Your task to perform on an android device: toggle location history Image 0: 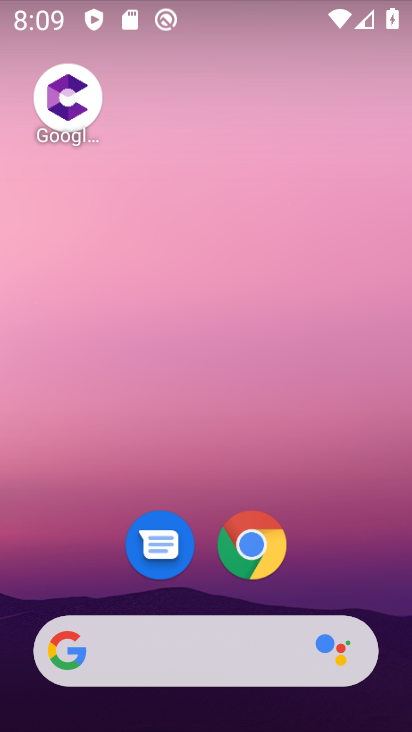
Step 0: drag from (327, 558) to (375, 231)
Your task to perform on an android device: toggle location history Image 1: 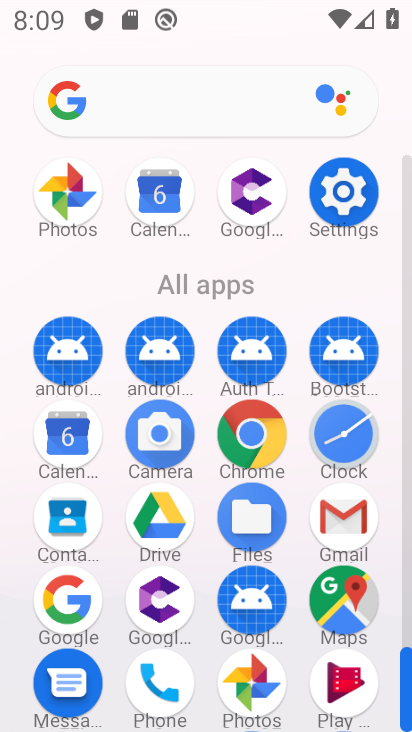
Step 1: click (345, 206)
Your task to perform on an android device: toggle location history Image 2: 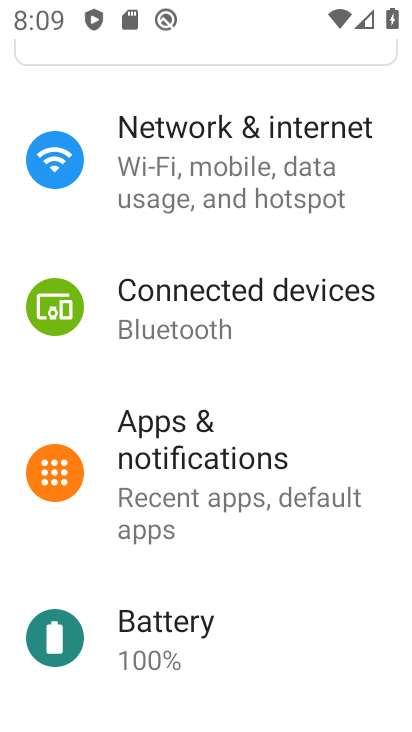
Step 2: drag from (156, 622) to (242, 287)
Your task to perform on an android device: toggle location history Image 3: 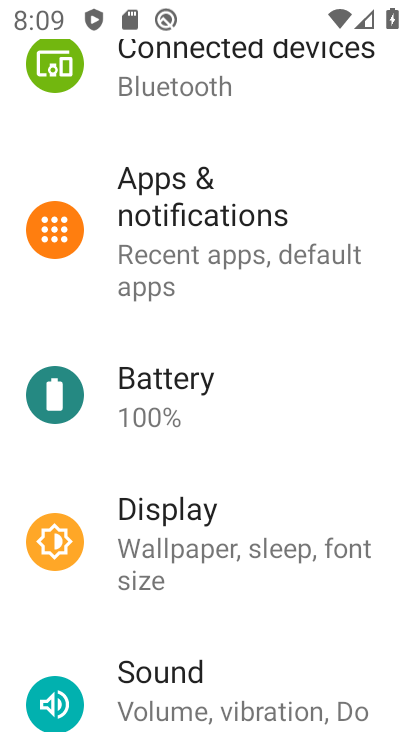
Step 3: drag from (267, 617) to (323, 238)
Your task to perform on an android device: toggle location history Image 4: 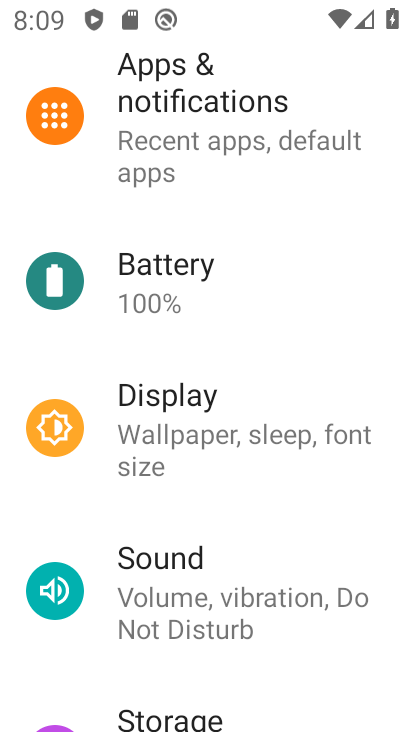
Step 4: drag from (302, 646) to (320, 341)
Your task to perform on an android device: toggle location history Image 5: 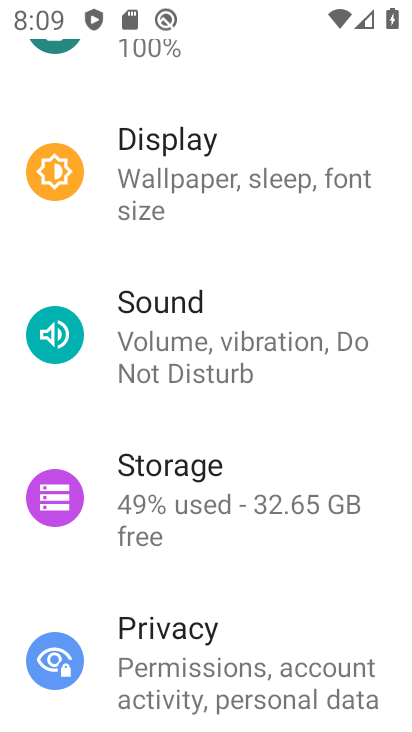
Step 5: drag from (266, 714) to (319, 373)
Your task to perform on an android device: toggle location history Image 6: 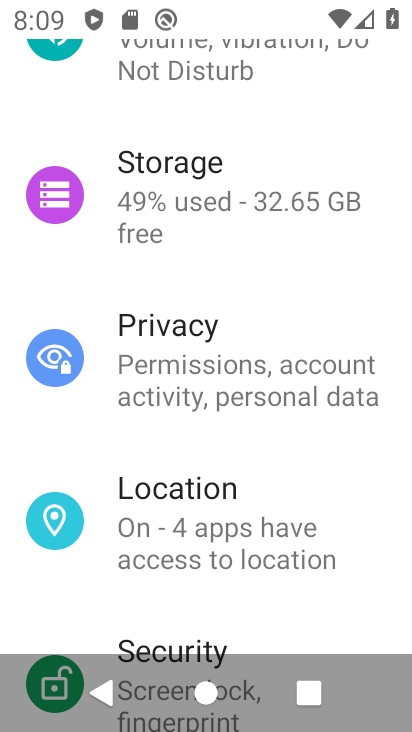
Step 6: click (245, 515)
Your task to perform on an android device: toggle location history Image 7: 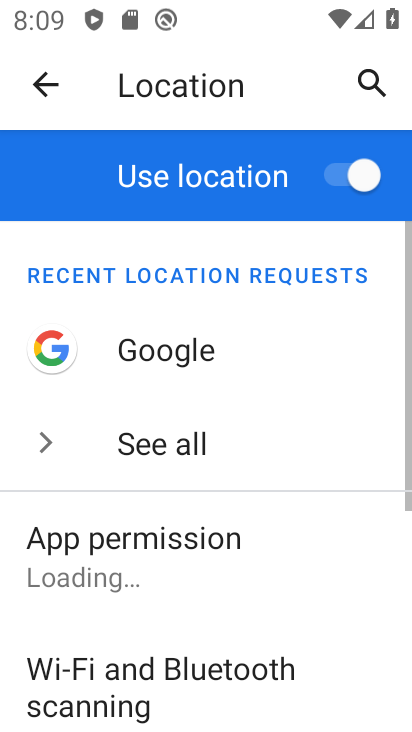
Step 7: drag from (250, 609) to (304, 295)
Your task to perform on an android device: toggle location history Image 8: 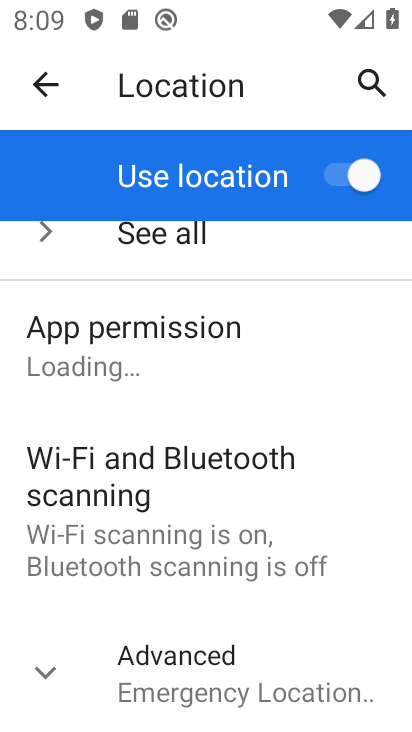
Step 8: click (222, 665)
Your task to perform on an android device: toggle location history Image 9: 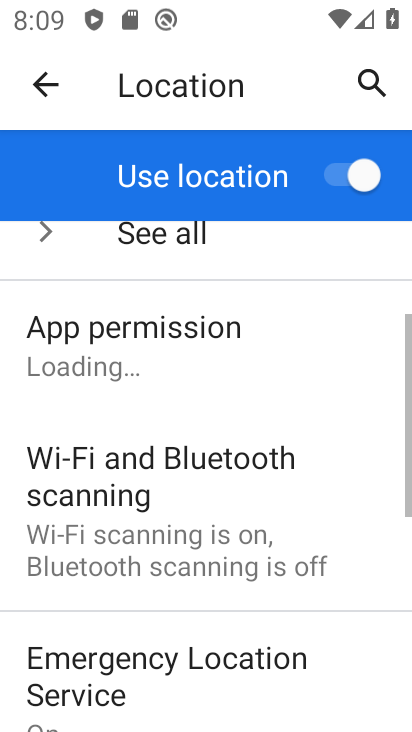
Step 9: drag from (221, 660) to (229, 338)
Your task to perform on an android device: toggle location history Image 10: 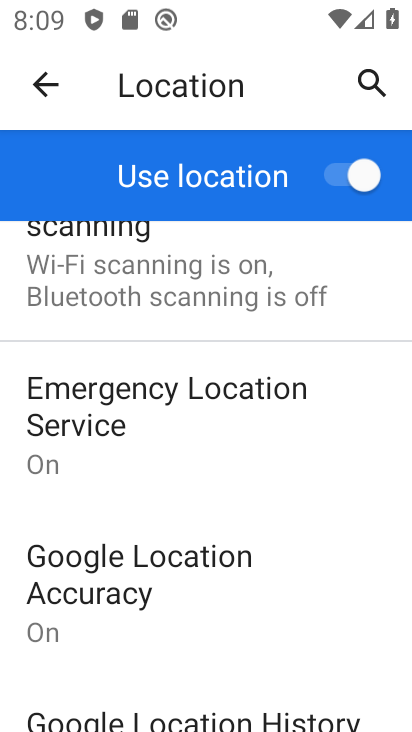
Step 10: drag from (247, 644) to (276, 458)
Your task to perform on an android device: toggle location history Image 11: 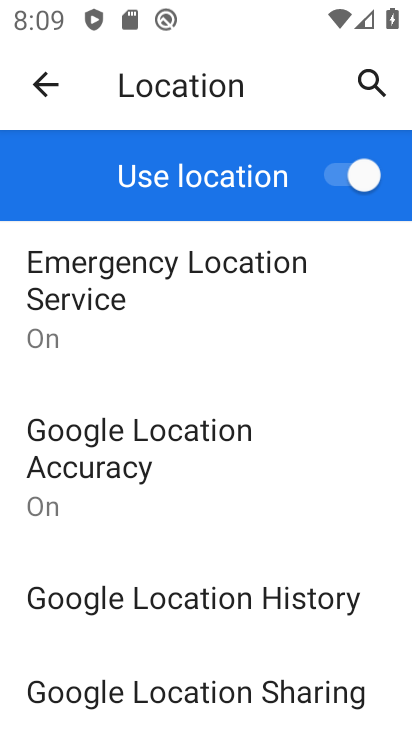
Step 11: click (251, 579)
Your task to perform on an android device: toggle location history Image 12: 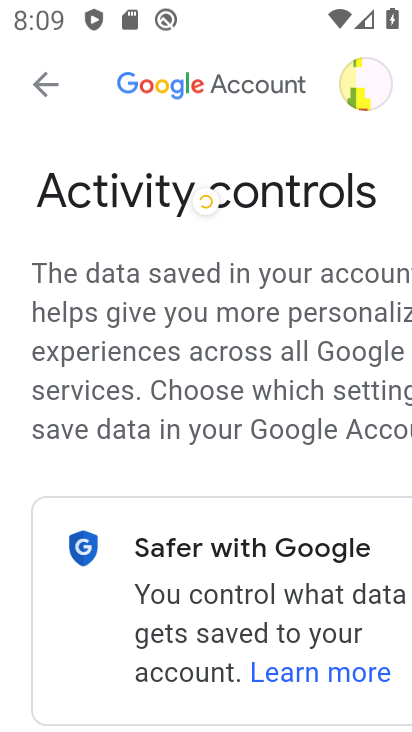
Step 12: drag from (251, 579) to (316, 158)
Your task to perform on an android device: toggle location history Image 13: 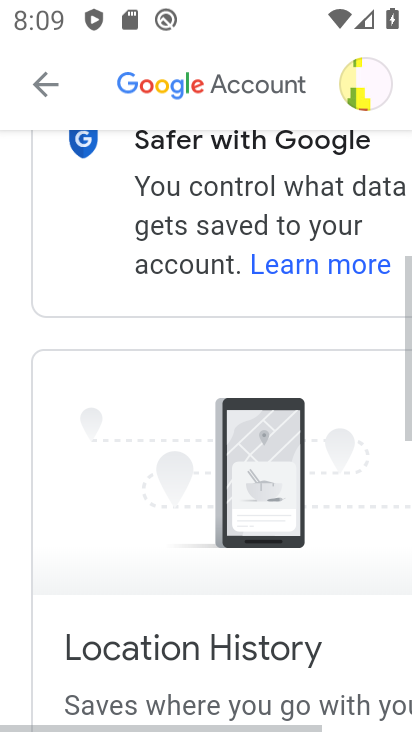
Step 13: drag from (239, 543) to (226, 256)
Your task to perform on an android device: toggle location history Image 14: 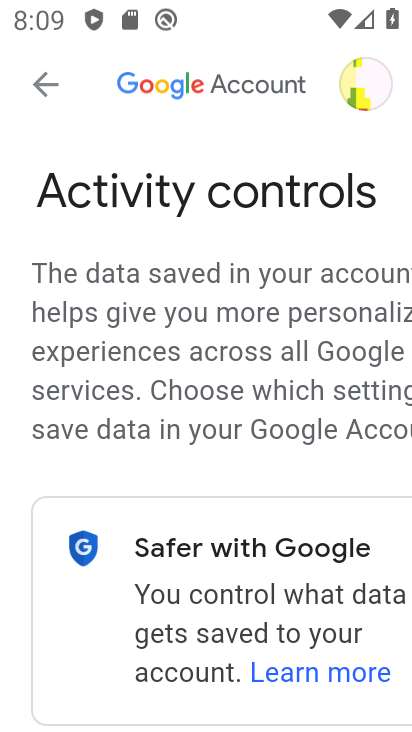
Step 14: drag from (270, 612) to (236, 256)
Your task to perform on an android device: toggle location history Image 15: 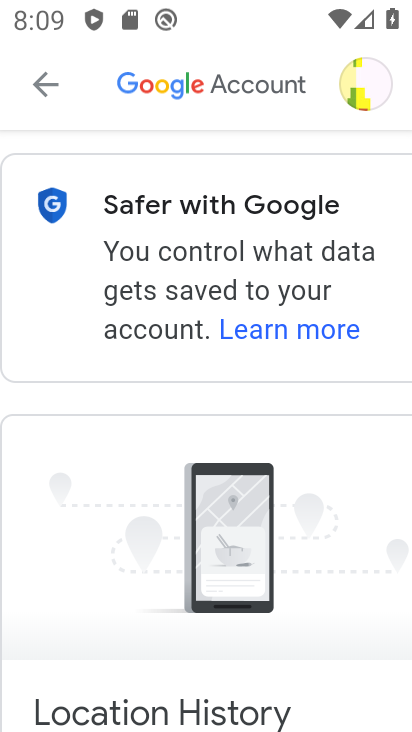
Step 15: drag from (289, 463) to (240, 331)
Your task to perform on an android device: toggle location history Image 16: 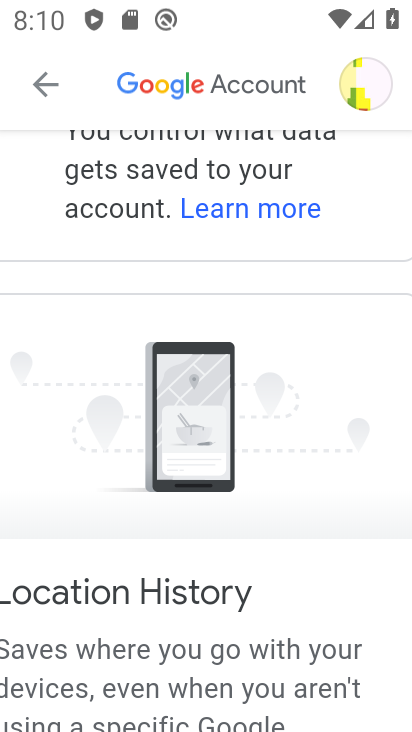
Step 16: drag from (283, 506) to (245, 340)
Your task to perform on an android device: toggle location history Image 17: 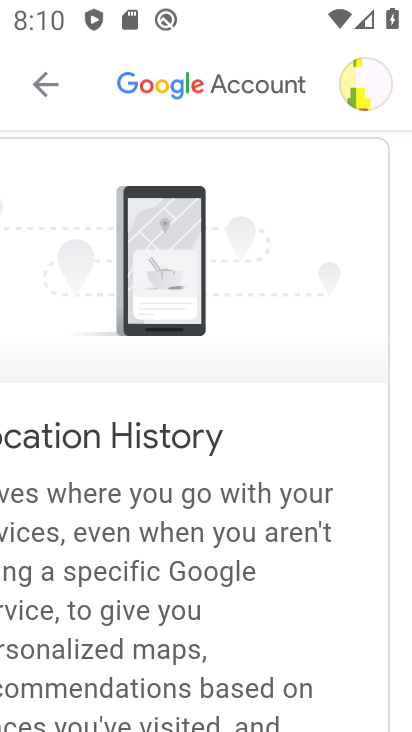
Step 17: drag from (300, 544) to (262, 348)
Your task to perform on an android device: toggle location history Image 18: 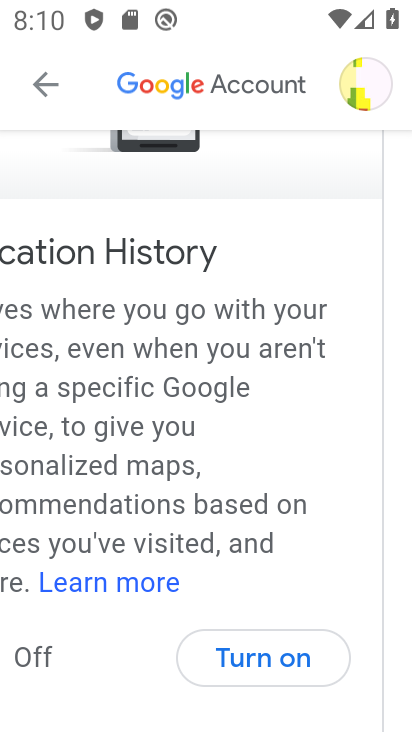
Step 18: click (254, 646)
Your task to perform on an android device: toggle location history Image 19: 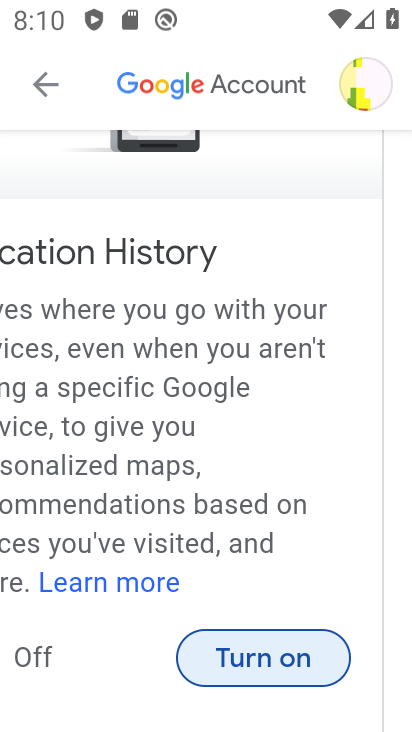
Step 19: click (254, 646)
Your task to perform on an android device: toggle location history Image 20: 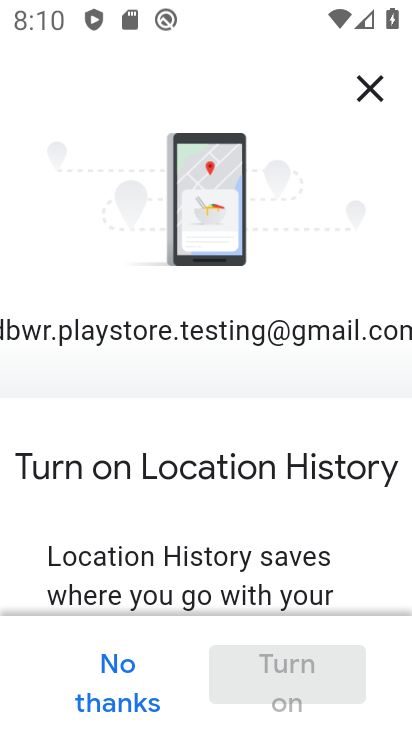
Step 20: drag from (237, 611) to (196, 333)
Your task to perform on an android device: toggle location history Image 21: 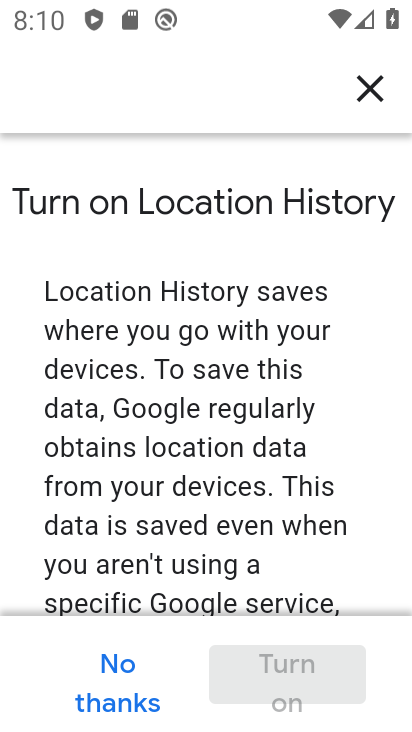
Step 21: drag from (259, 526) to (292, 306)
Your task to perform on an android device: toggle location history Image 22: 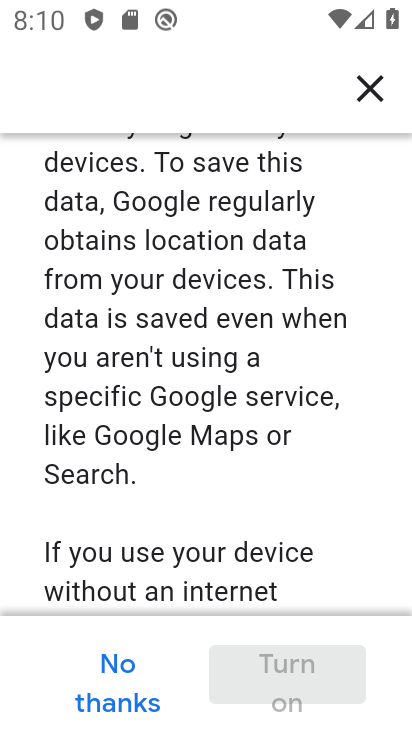
Step 22: drag from (279, 502) to (358, 89)
Your task to perform on an android device: toggle location history Image 23: 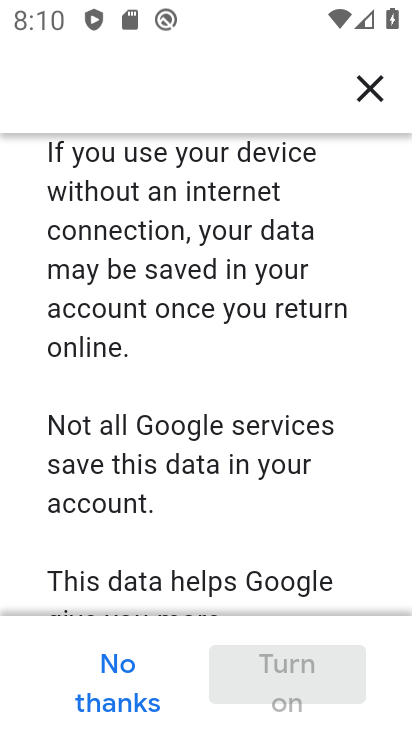
Step 23: drag from (366, 538) to (366, 170)
Your task to perform on an android device: toggle location history Image 24: 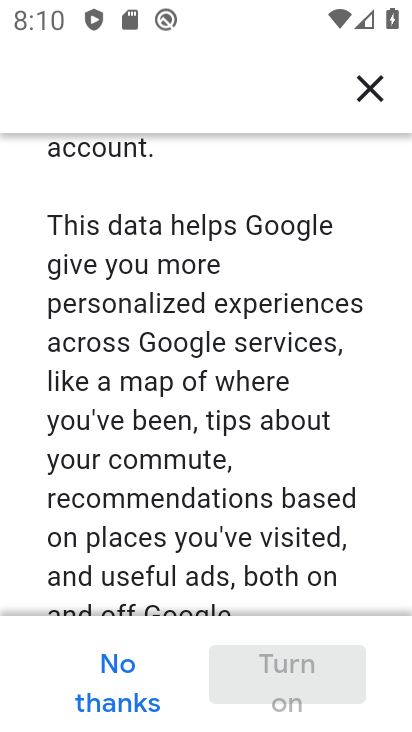
Step 24: drag from (261, 613) to (318, 319)
Your task to perform on an android device: toggle location history Image 25: 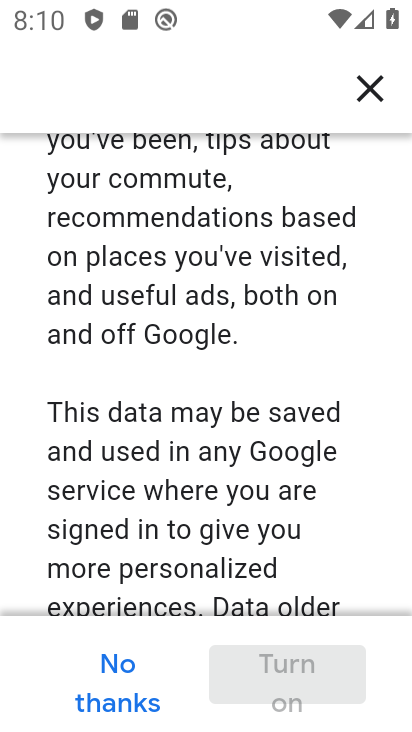
Step 25: drag from (296, 613) to (328, 385)
Your task to perform on an android device: toggle location history Image 26: 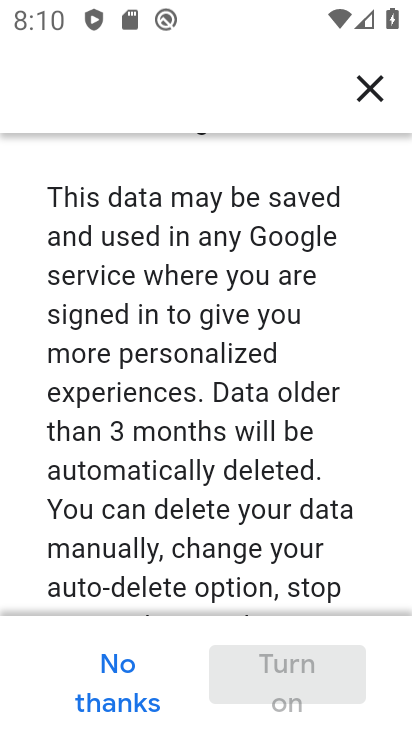
Step 26: drag from (258, 566) to (291, 217)
Your task to perform on an android device: toggle location history Image 27: 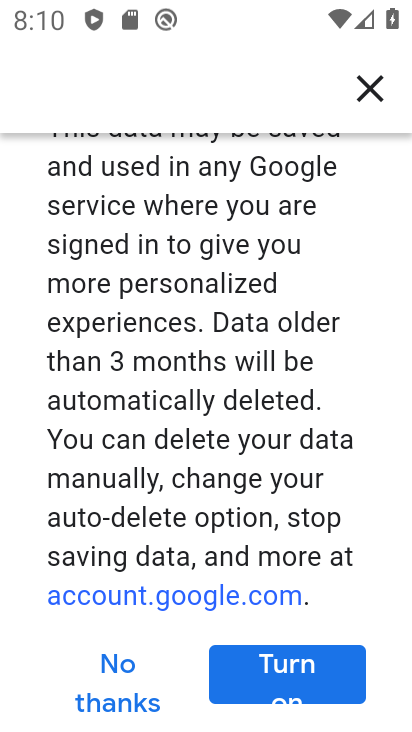
Step 27: click (267, 696)
Your task to perform on an android device: toggle location history Image 28: 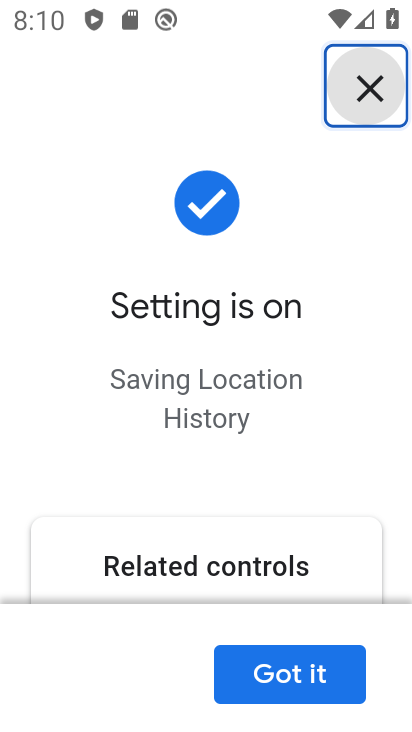
Step 28: task complete